Your task to perform on an android device: See recent photos Image 0: 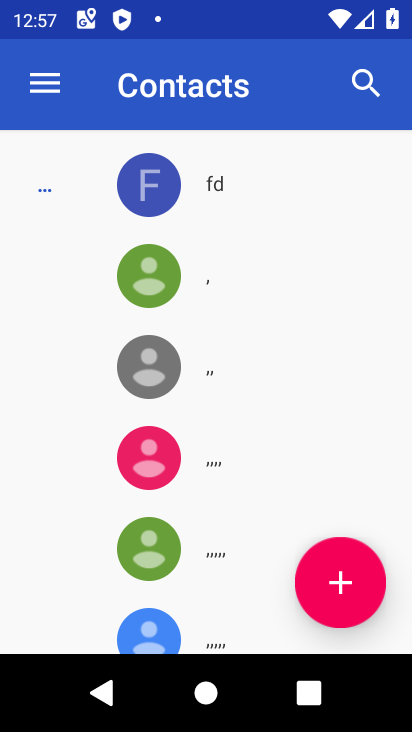
Step 0: press home button
Your task to perform on an android device: See recent photos Image 1: 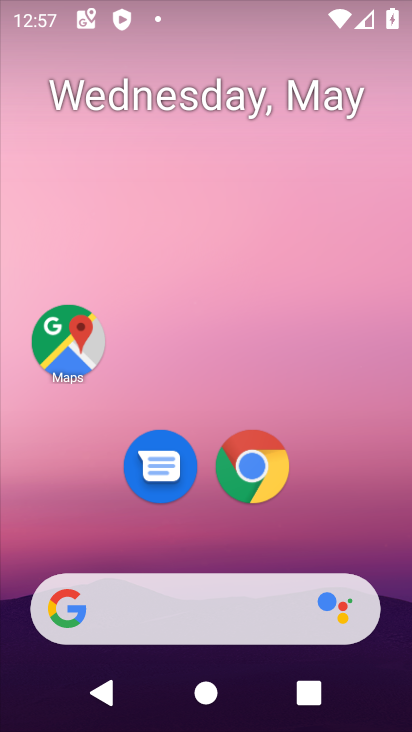
Step 1: drag from (232, 540) to (300, 12)
Your task to perform on an android device: See recent photos Image 2: 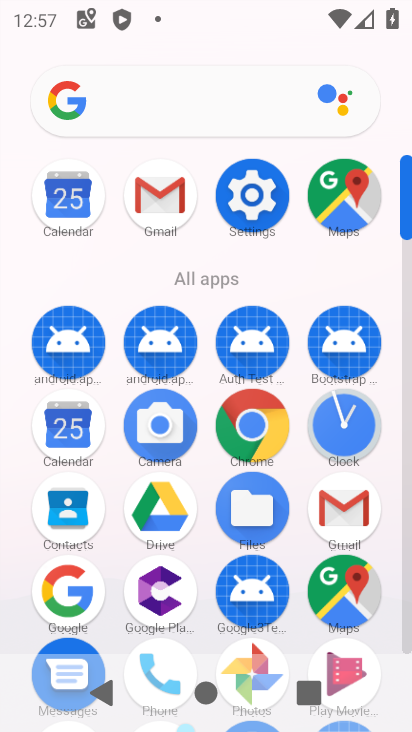
Step 2: drag from (212, 543) to (243, 277)
Your task to perform on an android device: See recent photos Image 3: 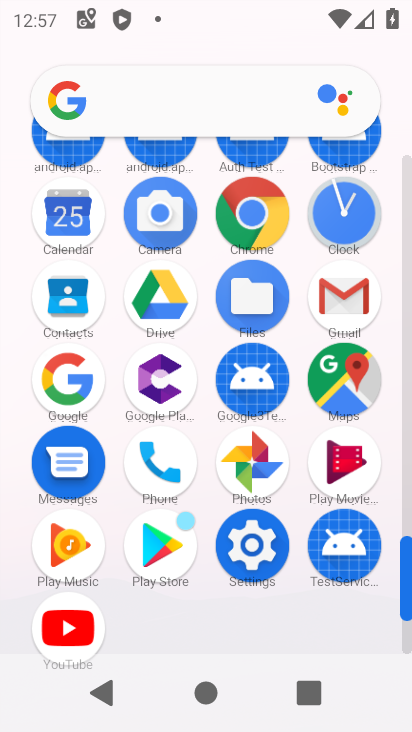
Step 3: click (254, 470)
Your task to perform on an android device: See recent photos Image 4: 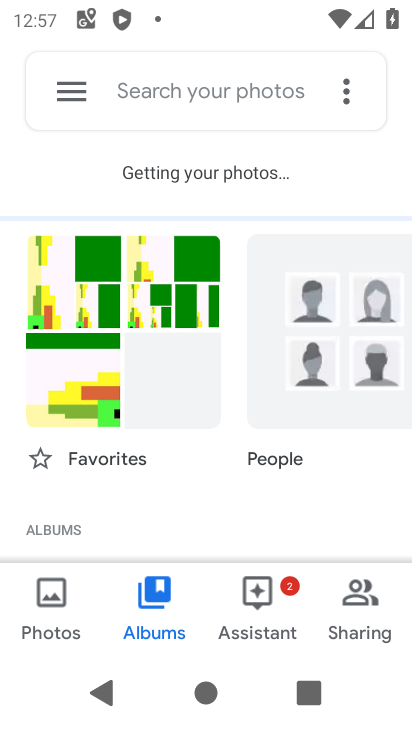
Step 4: click (61, 608)
Your task to perform on an android device: See recent photos Image 5: 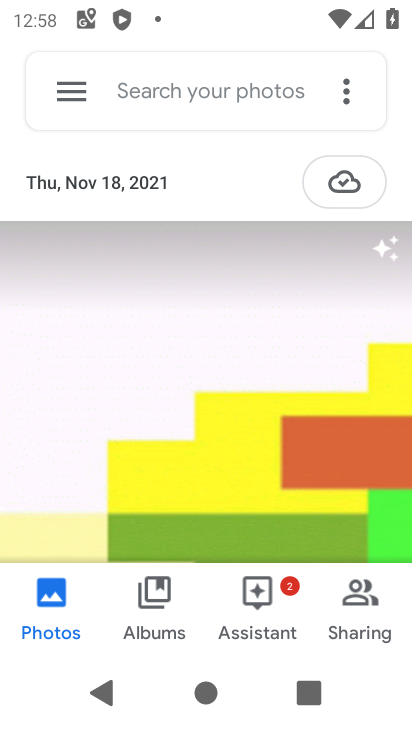
Step 5: task complete